Your task to perform on an android device: turn vacation reply on in the gmail app Image 0: 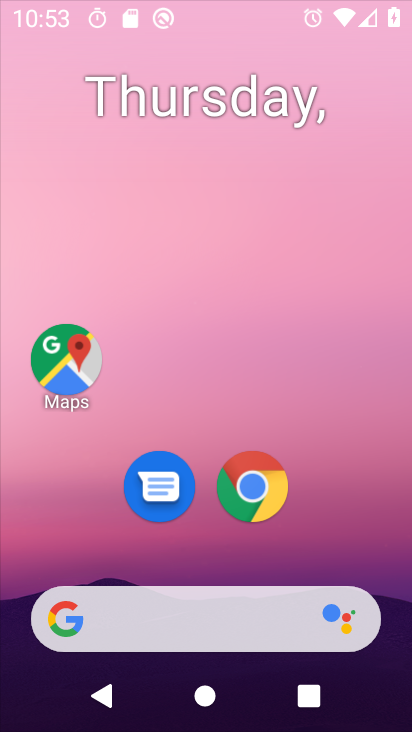
Step 0: click (240, 481)
Your task to perform on an android device: turn vacation reply on in the gmail app Image 1: 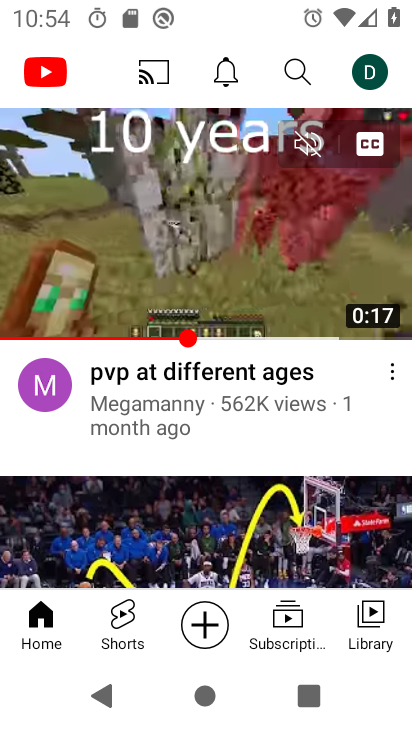
Step 1: click (292, 62)
Your task to perform on an android device: turn vacation reply on in the gmail app Image 2: 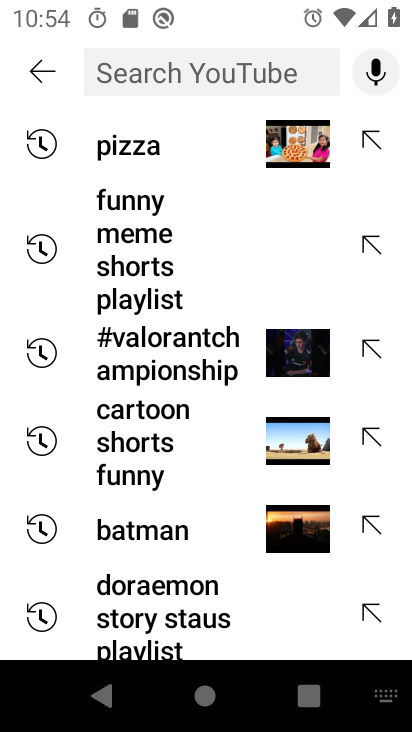
Step 2: click (33, 70)
Your task to perform on an android device: turn vacation reply on in the gmail app Image 3: 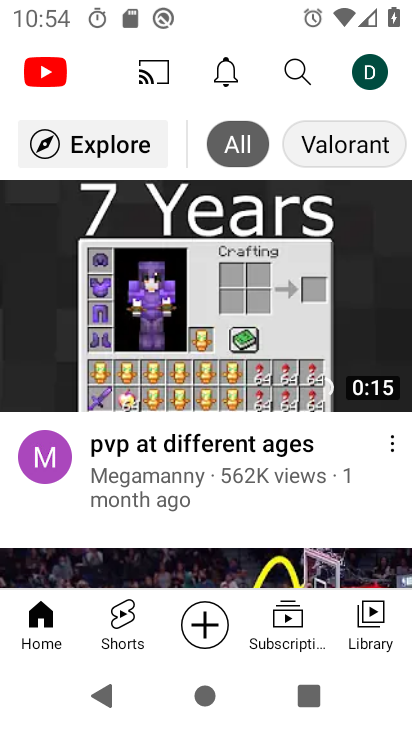
Step 3: press home button
Your task to perform on an android device: turn vacation reply on in the gmail app Image 4: 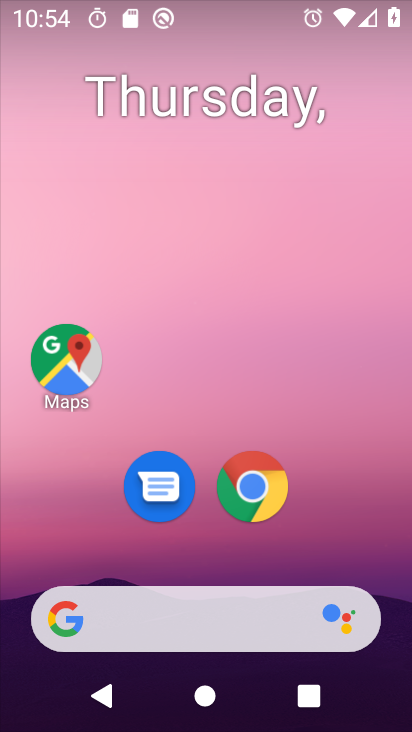
Step 4: click (362, 585)
Your task to perform on an android device: turn vacation reply on in the gmail app Image 5: 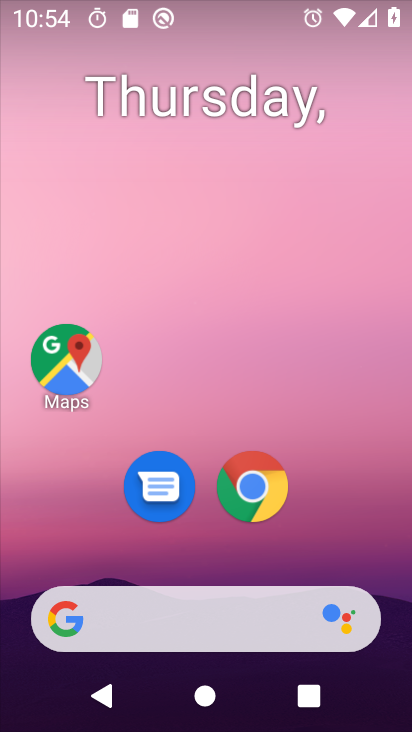
Step 5: click (340, 198)
Your task to perform on an android device: turn vacation reply on in the gmail app Image 6: 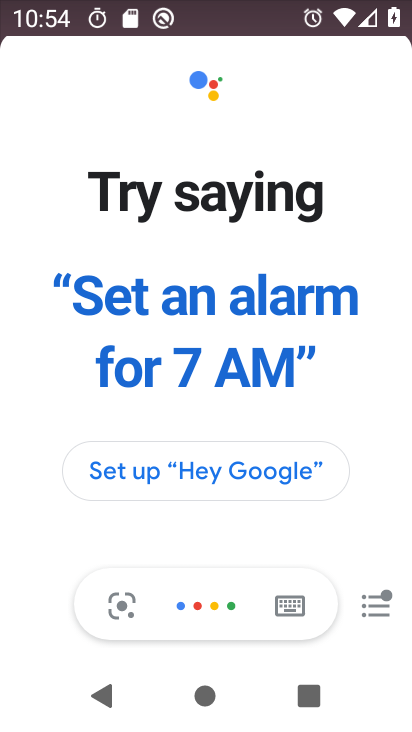
Step 6: drag from (376, 361) to (371, 206)
Your task to perform on an android device: turn vacation reply on in the gmail app Image 7: 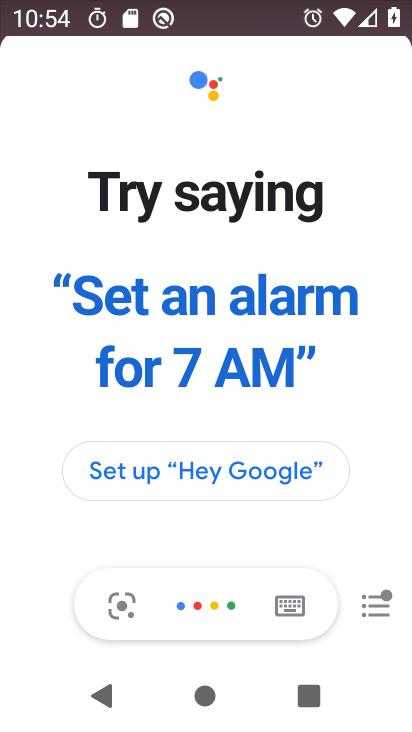
Step 7: press home button
Your task to perform on an android device: turn vacation reply on in the gmail app Image 8: 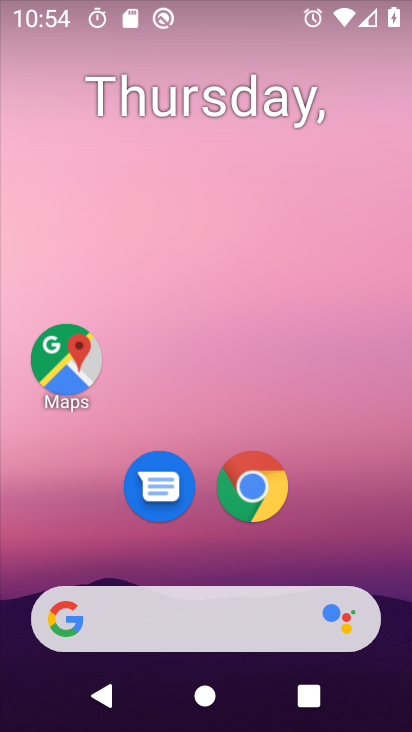
Step 8: drag from (398, 354) to (370, 148)
Your task to perform on an android device: turn vacation reply on in the gmail app Image 9: 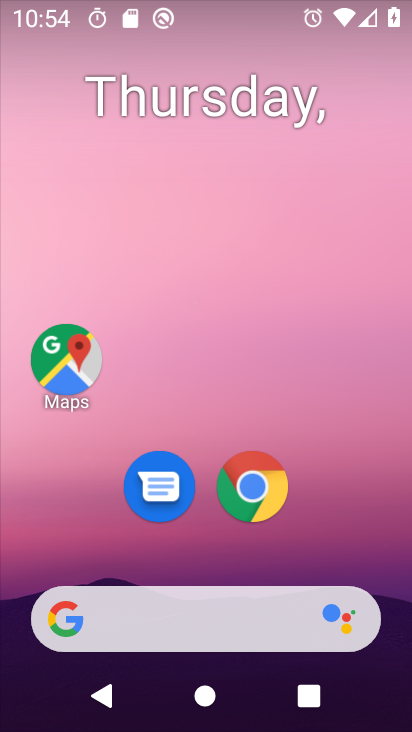
Step 9: drag from (393, 558) to (388, 371)
Your task to perform on an android device: turn vacation reply on in the gmail app Image 10: 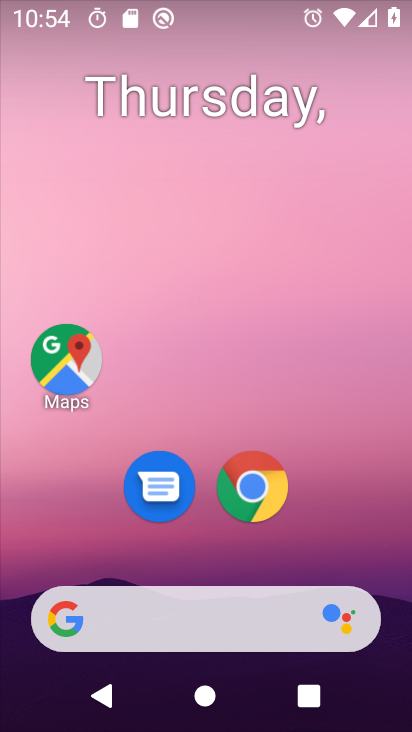
Step 10: drag from (360, 261) to (356, 223)
Your task to perform on an android device: turn vacation reply on in the gmail app Image 11: 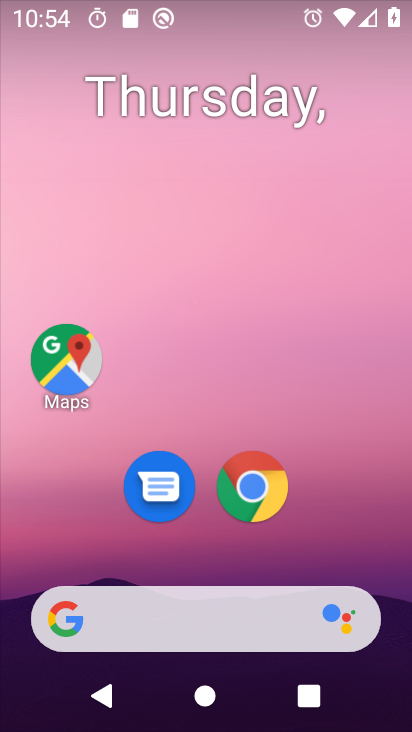
Step 11: drag from (379, 483) to (348, 133)
Your task to perform on an android device: turn vacation reply on in the gmail app Image 12: 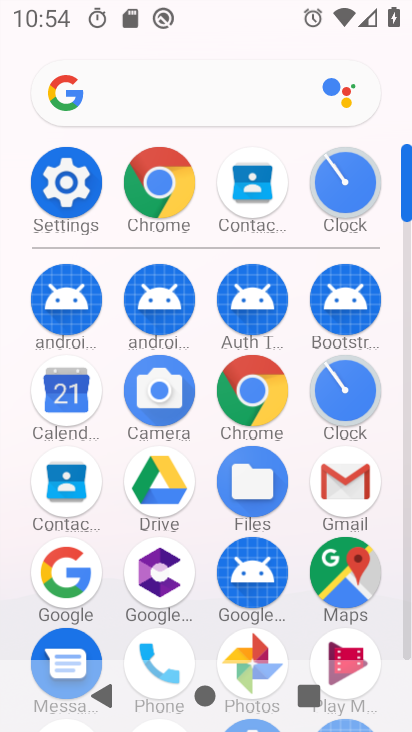
Step 12: click (352, 488)
Your task to perform on an android device: turn vacation reply on in the gmail app Image 13: 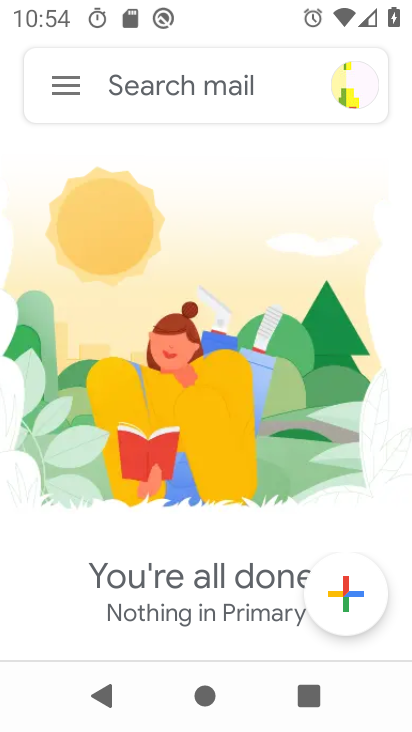
Step 13: click (64, 89)
Your task to perform on an android device: turn vacation reply on in the gmail app Image 14: 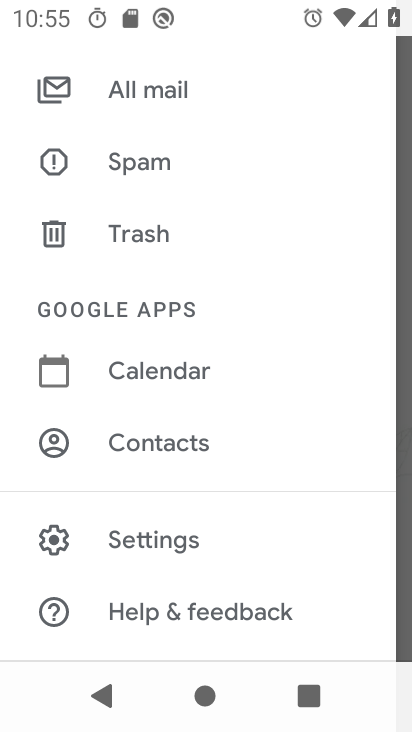
Step 14: drag from (310, 599) to (304, 235)
Your task to perform on an android device: turn vacation reply on in the gmail app Image 15: 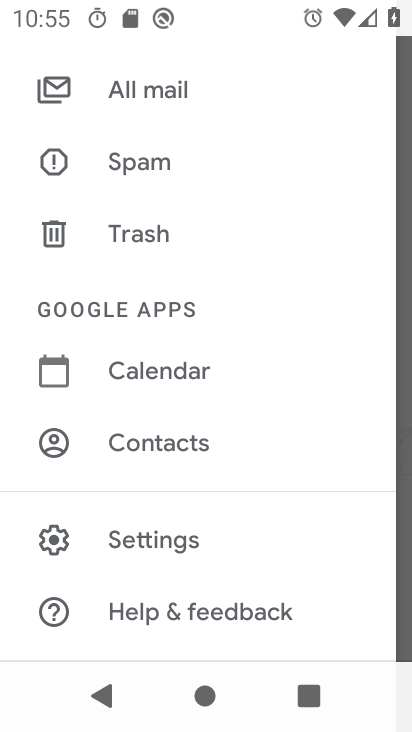
Step 15: click (129, 538)
Your task to perform on an android device: turn vacation reply on in the gmail app Image 16: 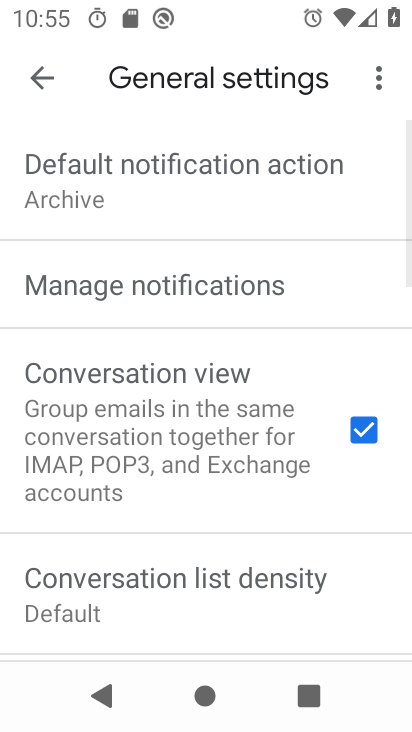
Step 16: drag from (276, 625) to (289, 237)
Your task to perform on an android device: turn vacation reply on in the gmail app Image 17: 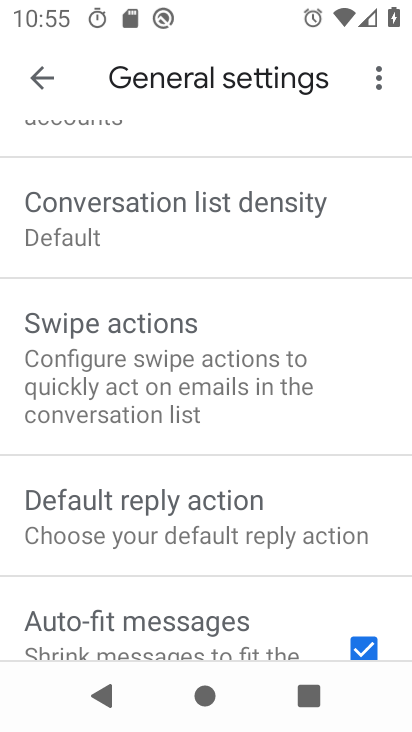
Step 17: drag from (270, 614) to (263, 334)
Your task to perform on an android device: turn vacation reply on in the gmail app Image 18: 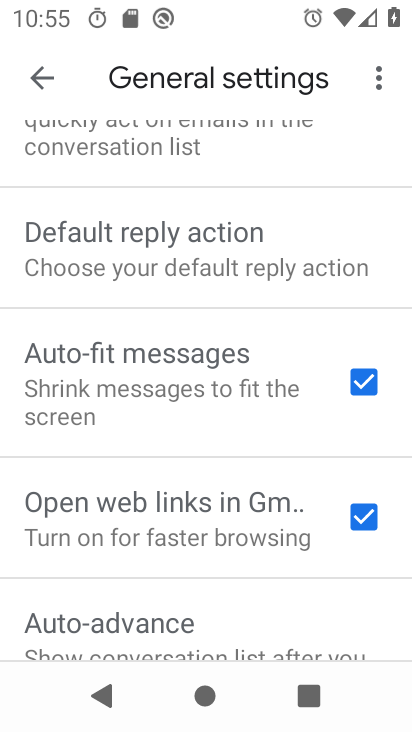
Step 18: drag from (255, 482) to (256, 352)
Your task to perform on an android device: turn vacation reply on in the gmail app Image 19: 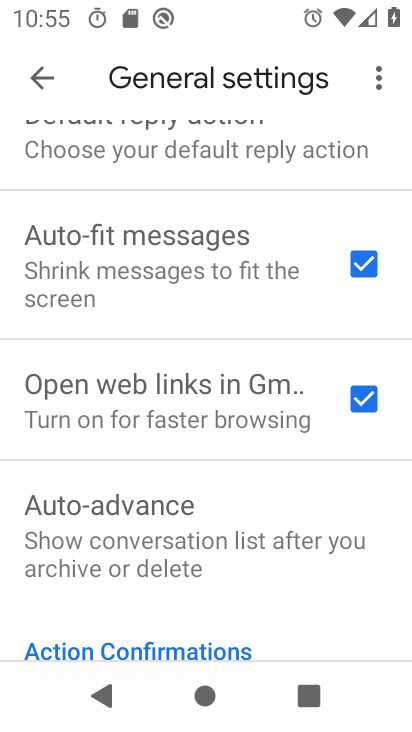
Step 19: drag from (232, 619) to (227, 297)
Your task to perform on an android device: turn vacation reply on in the gmail app Image 20: 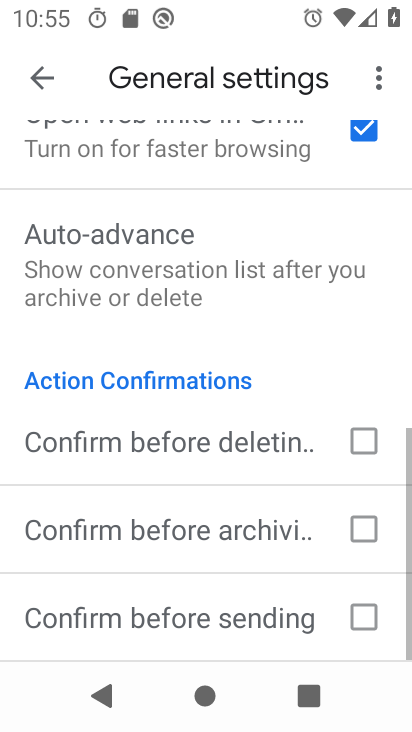
Step 20: drag from (210, 609) to (225, 335)
Your task to perform on an android device: turn vacation reply on in the gmail app Image 21: 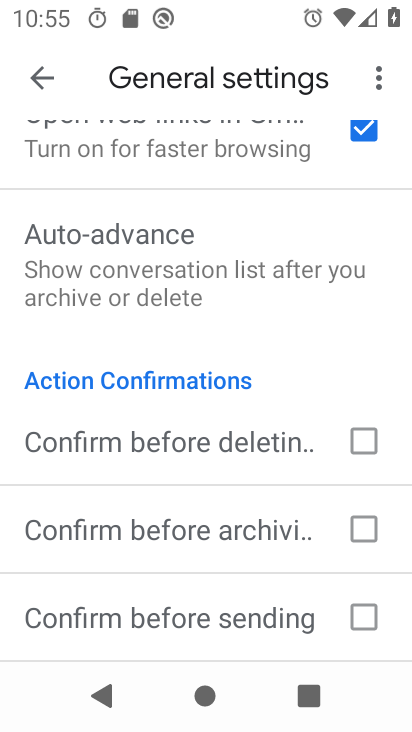
Step 21: drag from (205, 532) to (215, 316)
Your task to perform on an android device: turn vacation reply on in the gmail app Image 22: 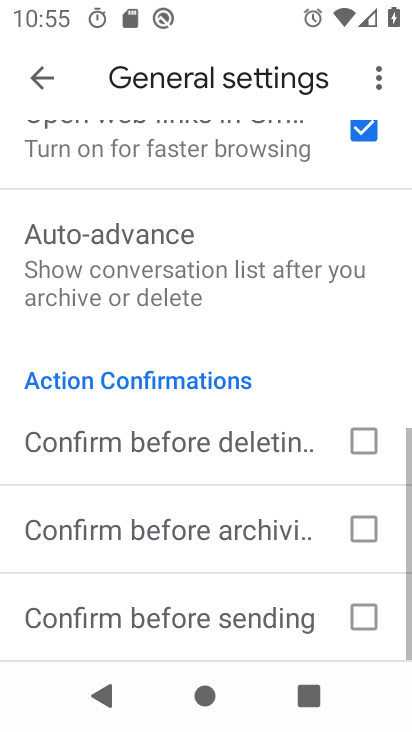
Step 22: drag from (234, 168) to (242, 495)
Your task to perform on an android device: turn vacation reply on in the gmail app Image 23: 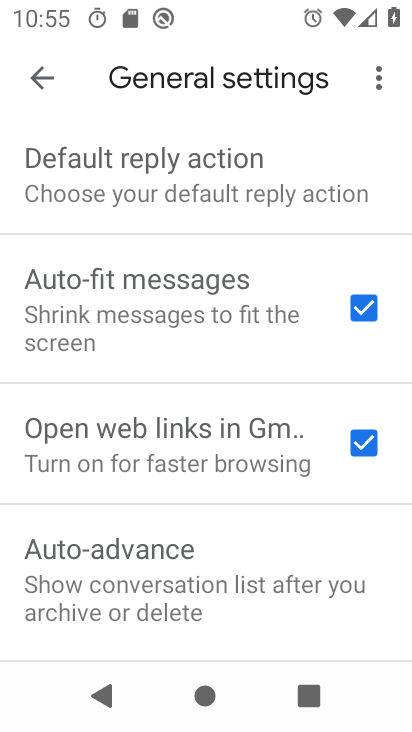
Step 23: drag from (221, 469) to (225, 509)
Your task to perform on an android device: turn vacation reply on in the gmail app Image 24: 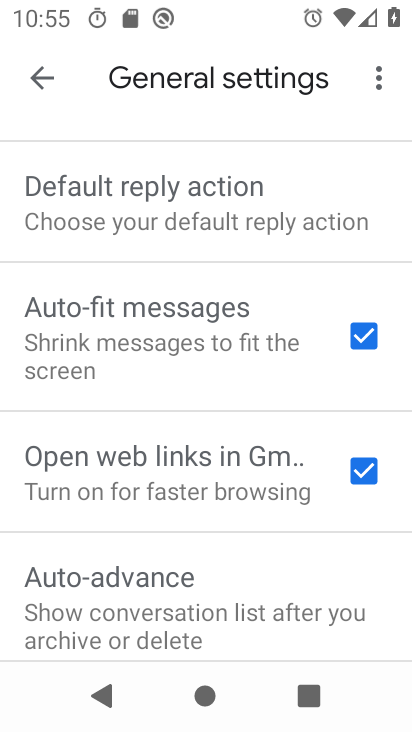
Step 24: drag from (225, 184) to (233, 544)
Your task to perform on an android device: turn vacation reply on in the gmail app Image 25: 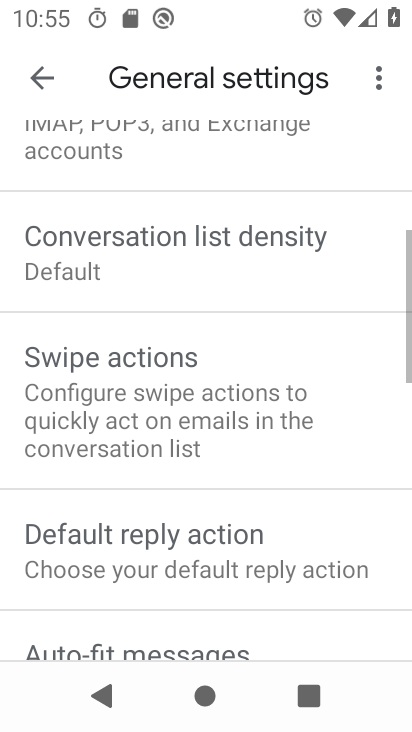
Step 25: drag from (249, 275) to (260, 545)
Your task to perform on an android device: turn vacation reply on in the gmail app Image 26: 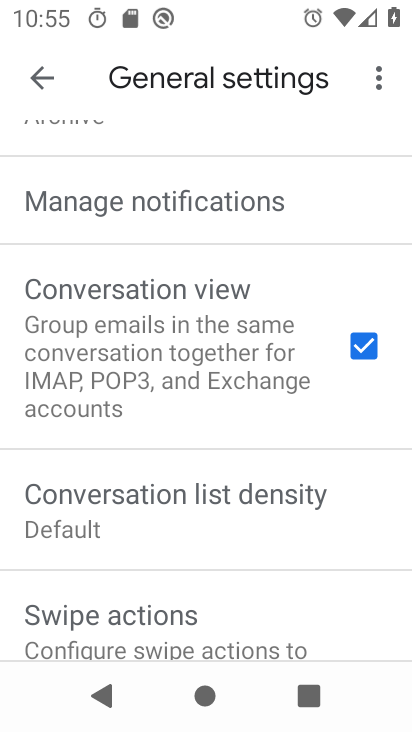
Step 26: drag from (227, 266) to (236, 612)
Your task to perform on an android device: turn vacation reply on in the gmail app Image 27: 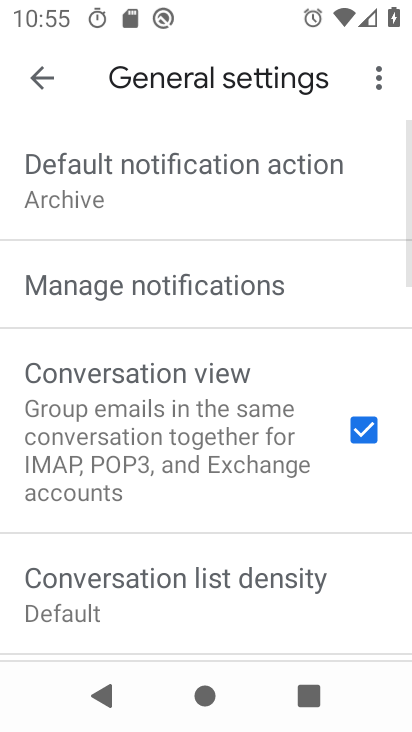
Step 27: click (37, 74)
Your task to perform on an android device: turn vacation reply on in the gmail app Image 28: 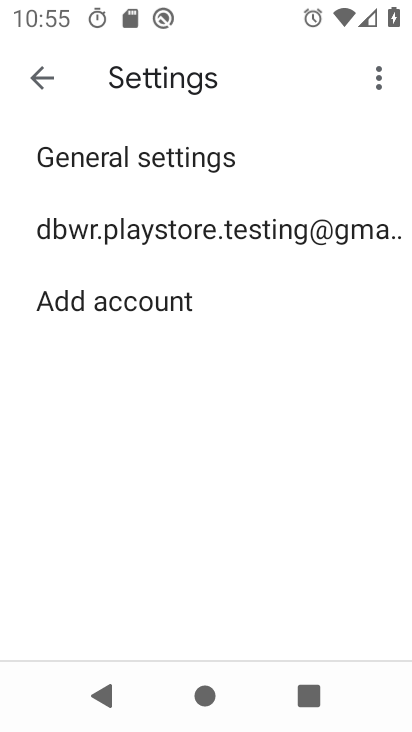
Step 28: click (146, 231)
Your task to perform on an android device: turn vacation reply on in the gmail app Image 29: 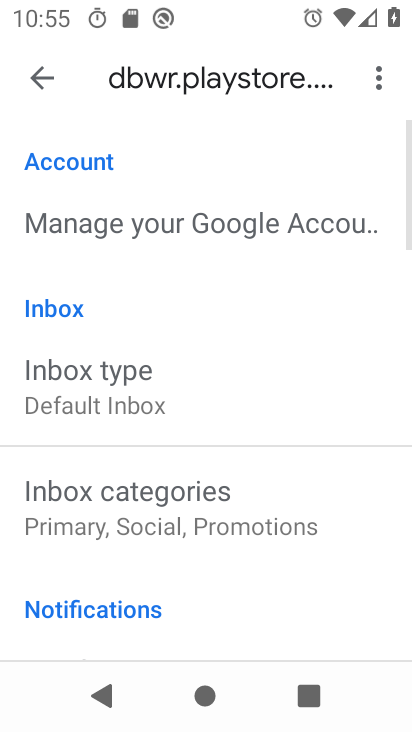
Step 29: drag from (297, 620) to (288, 375)
Your task to perform on an android device: turn vacation reply on in the gmail app Image 30: 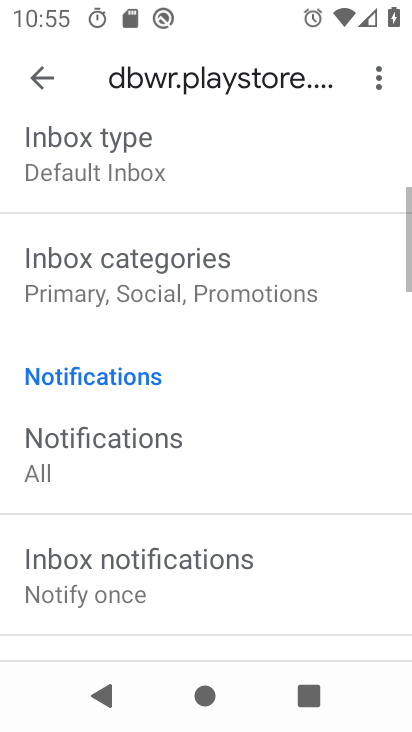
Step 30: drag from (324, 338) to (326, 242)
Your task to perform on an android device: turn vacation reply on in the gmail app Image 31: 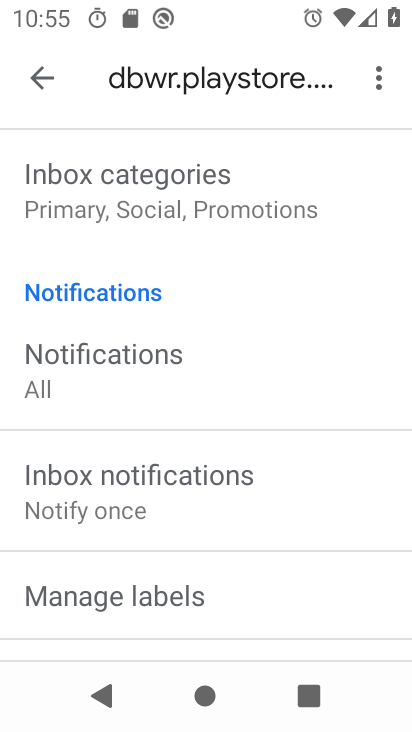
Step 31: drag from (323, 297) to (323, 242)
Your task to perform on an android device: turn vacation reply on in the gmail app Image 32: 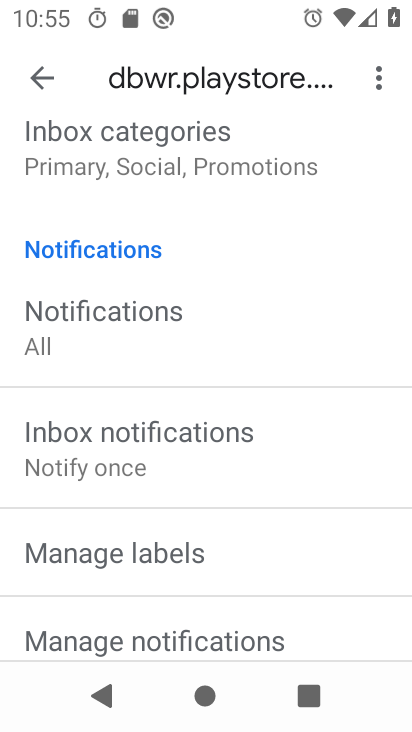
Step 32: drag from (319, 419) to (319, 306)
Your task to perform on an android device: turn vacation reply on in the gmail app Image 33: 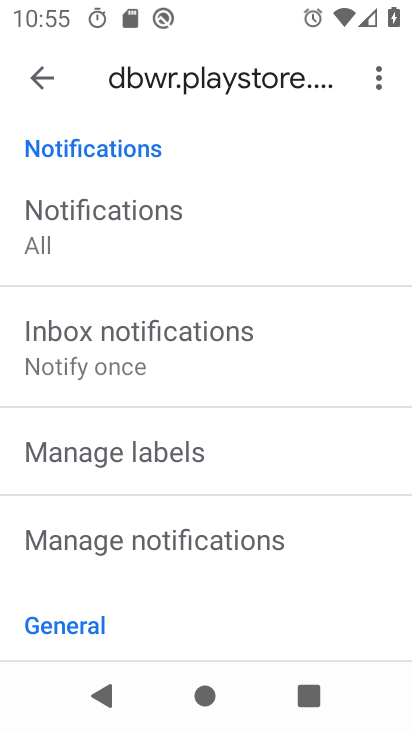
Step 33: drag from (326, 525) to (328, 302)
Your task to perform on an android device: turn vacation reply on in the gmail app Image 34: 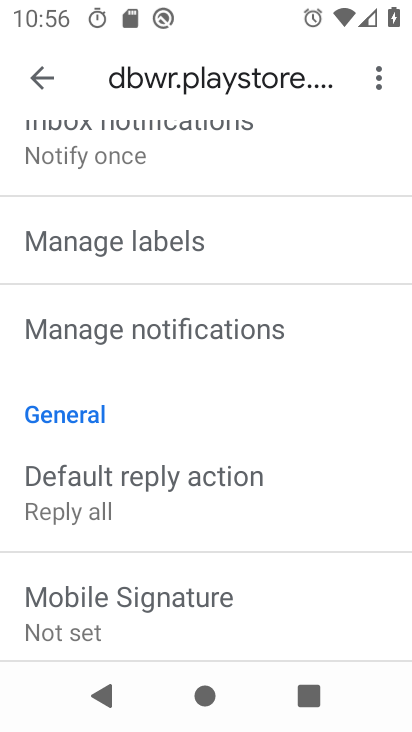
Step 34: drag from (325, 595) to (342, 358)
Your task to perform on an android device: turn vacation reply on in the gmail app Image 35: 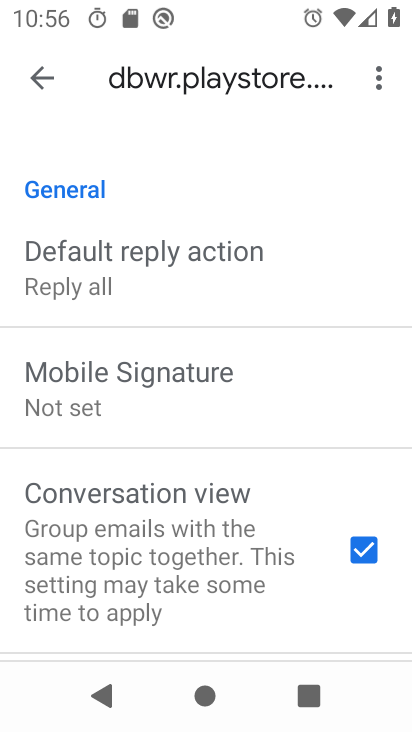
Step 35: drag from (283, 580) to (304, 286)
Your task to perform on an android device: turn vacation reply on in the gmail app Image 36: 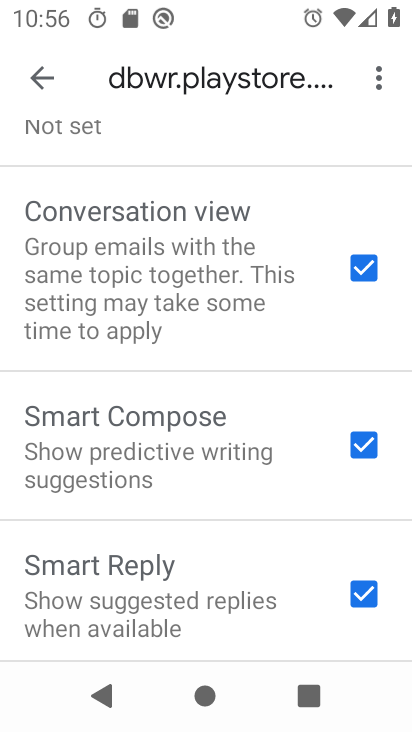
Step 36: drag from (274, 587) to (270, 270)
Your task to perform on an android device: turn vacation reply on in the gmail app Image 37: 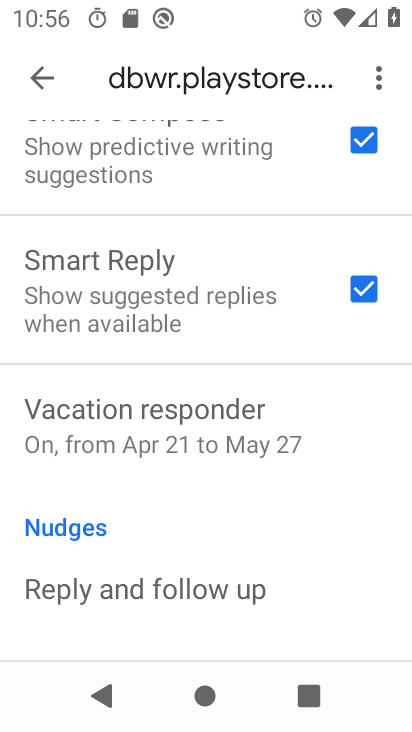
Step 37: click (153, 416)
Your task to perform on an android device: turn vacation reply on in the gmail app Image 38: 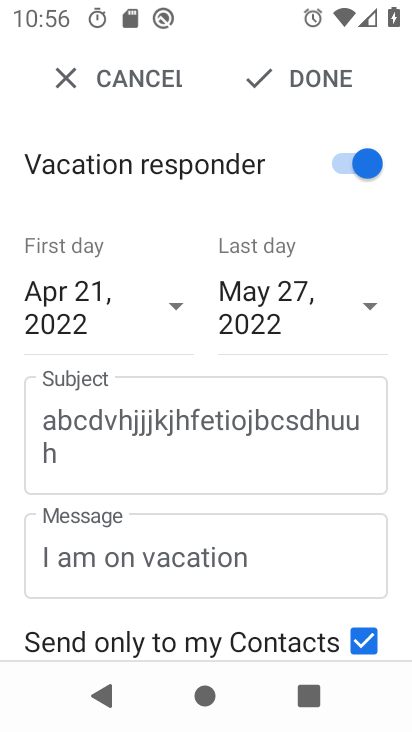
Step 38: task complete